Your task to perform on an android device: turn off sleep mode Image 0: 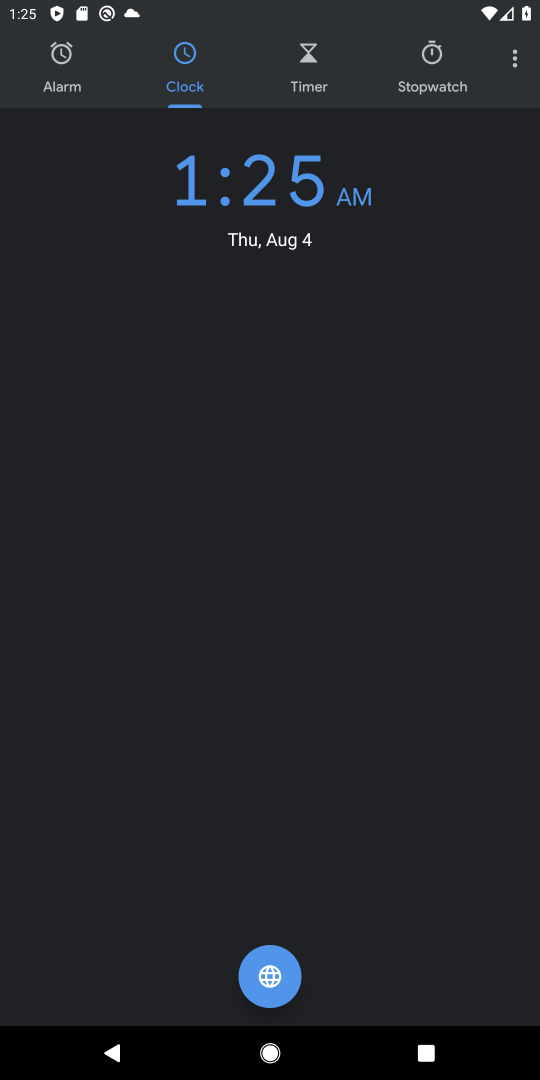
Step 0: press home button
Your task to perform on an android device: turn off sleep mode Image 1: 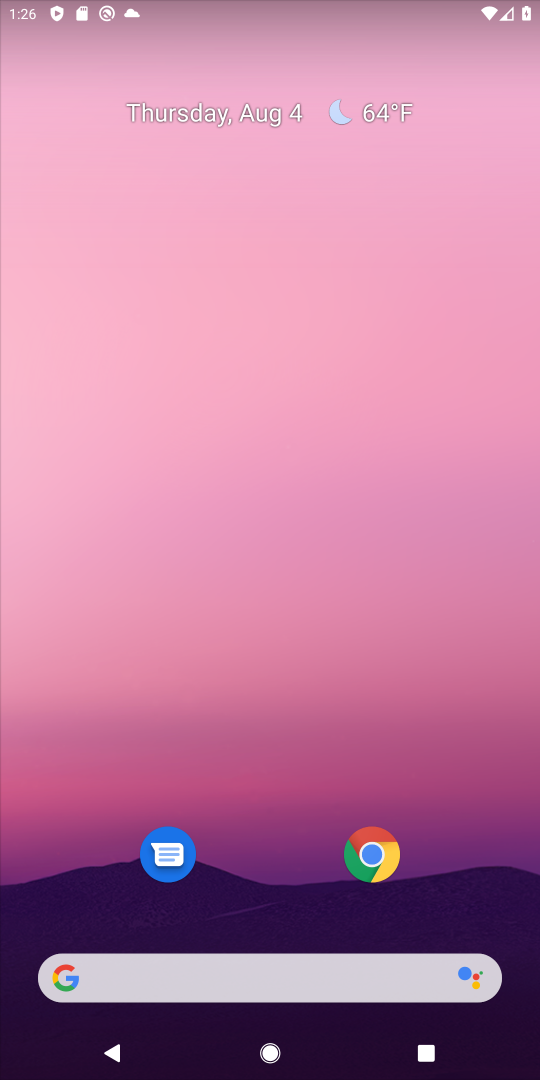
Step 1: drag from (310, 779) to (385, 168)
Your task to perform on an android device: turn off sleep mode Image 2: 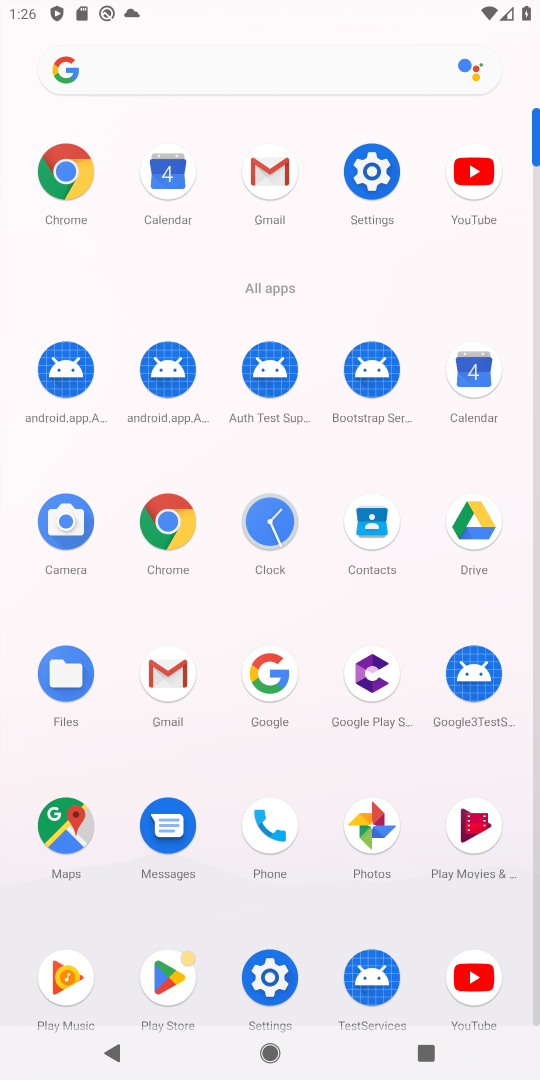
Step 2: click (375, 163)
Your task to perform on an android device: turn off sleep mode Image 3: 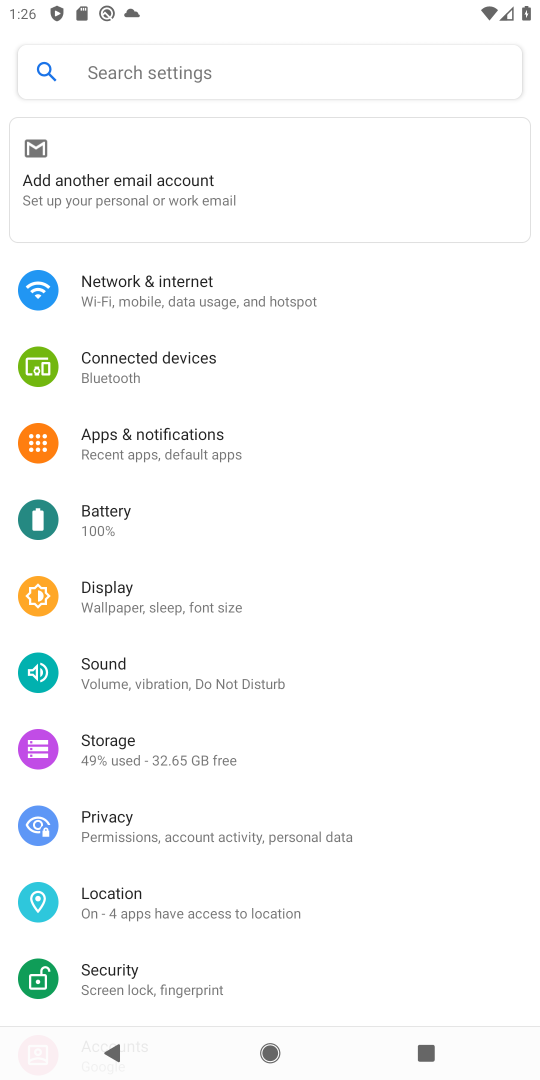
Step 3: task complete